Your task to perform on an android device: Open the stopwatch Image 0: 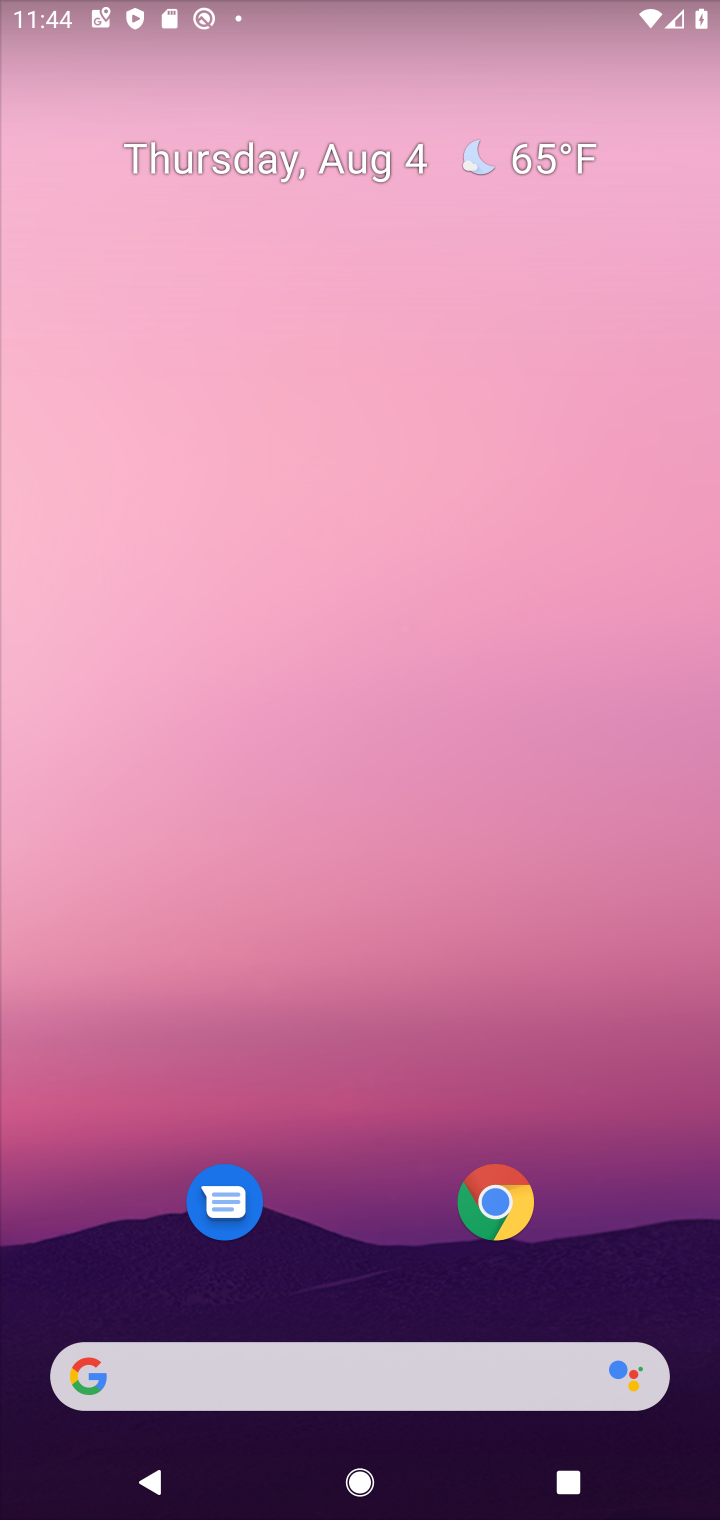
Step 0: drag from (364, 1179) to (539, 80)
Your task to perform on an android device: Open the stopwatch Image 1: 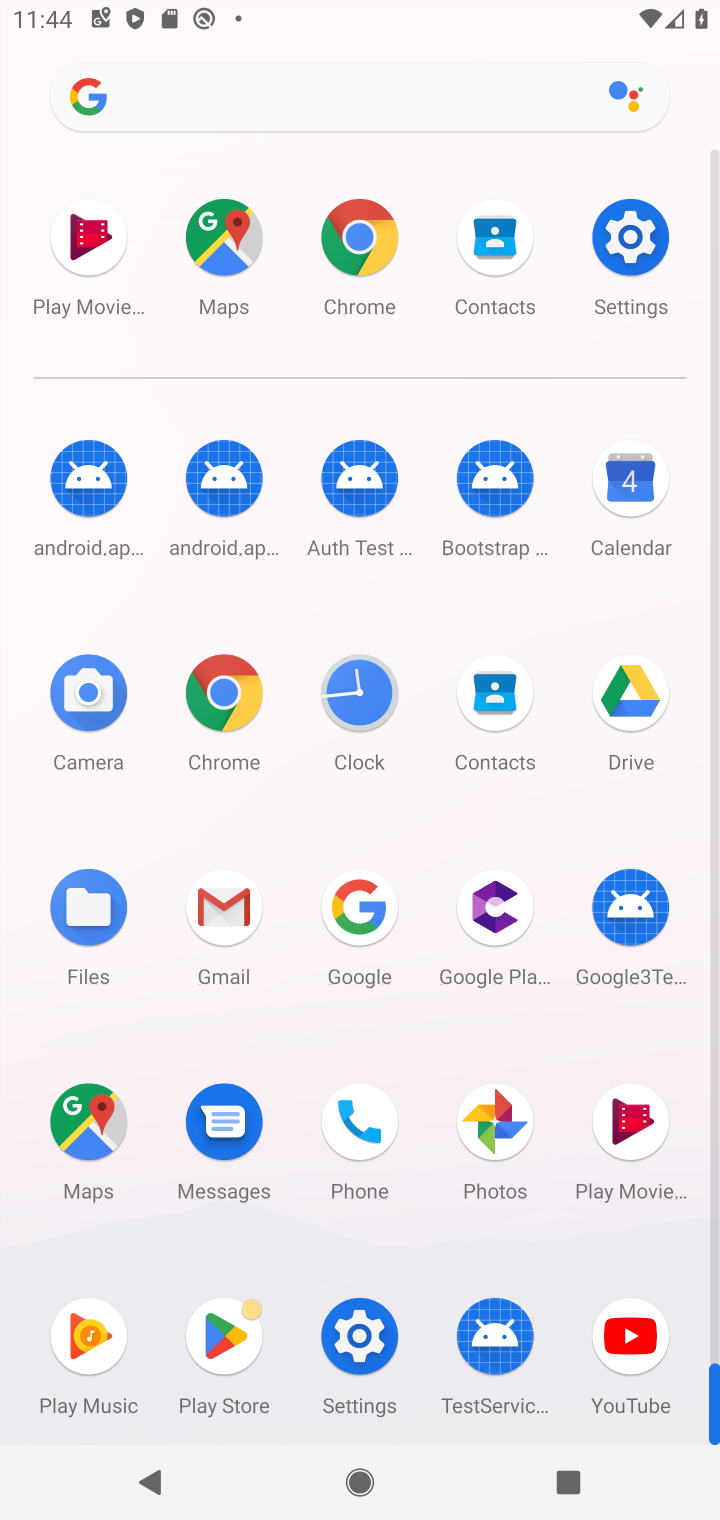
Step 1: click (365, 701)
Your task to perform on an android device: Open the stopwatch Image 2: 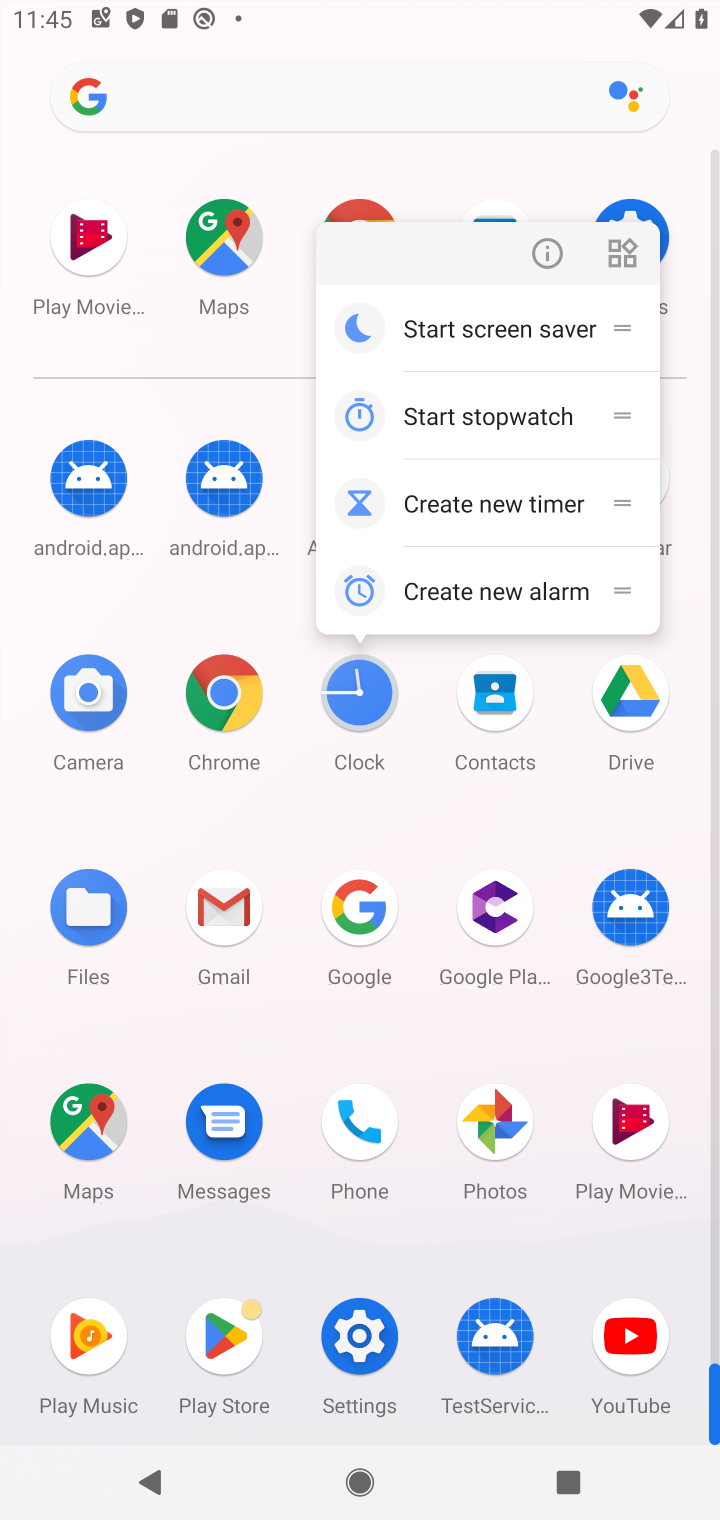
Step 2: click (362, 724)
Your task to perform on an android device: Open the stopwatch Image 3: 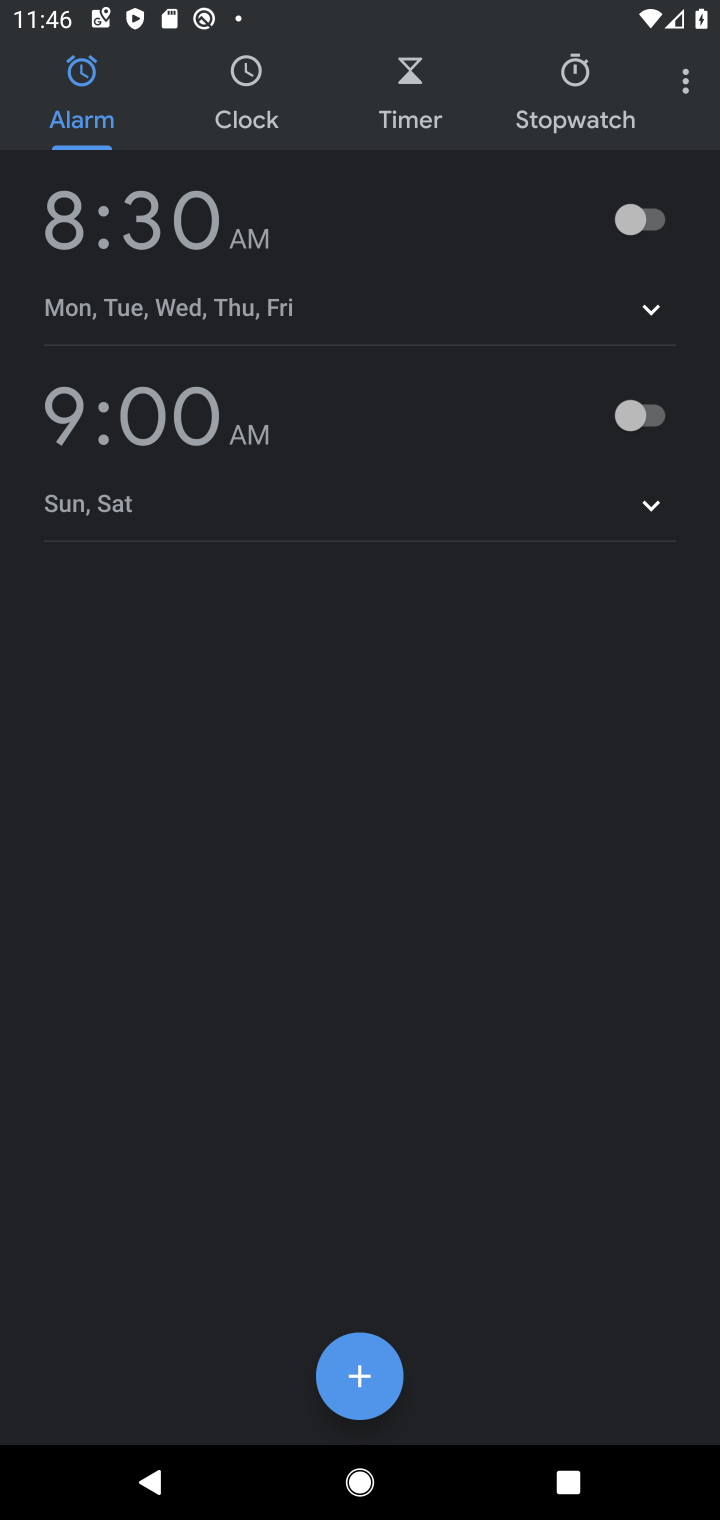
Step 3: click (580, 53)
Your task to perform on an android device: Open the stopwatch Image 4: 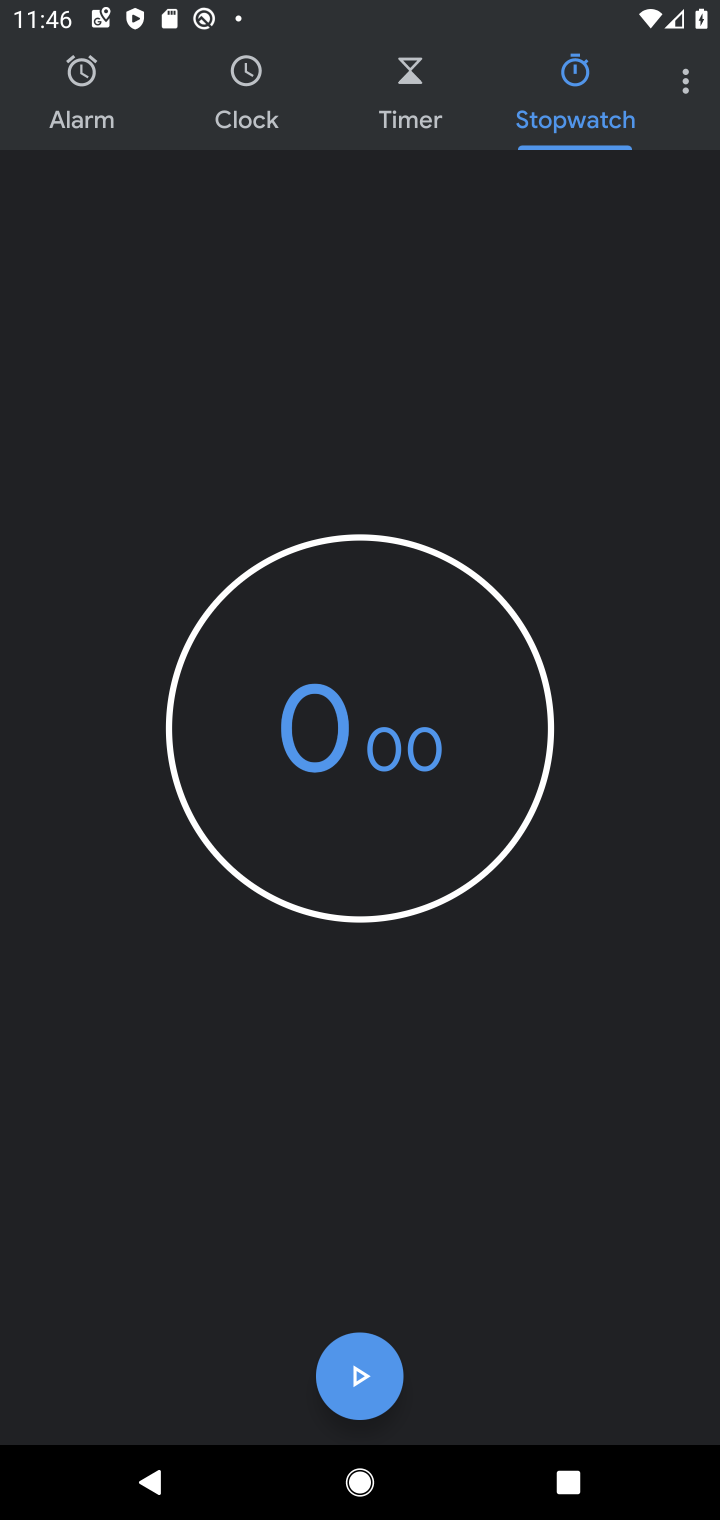
Step 4: task complete